Your task to perform on an android device: Do I have any events this weekend? Image 0: 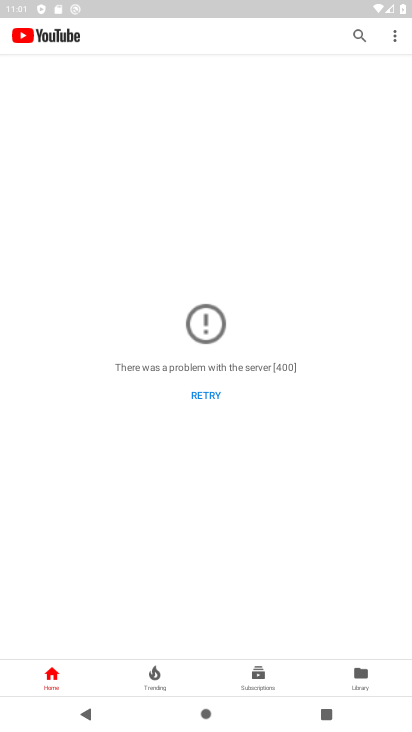
Step 0: press home button
Your task to perform on an android device: Do I have any events this weekend? Image 1: 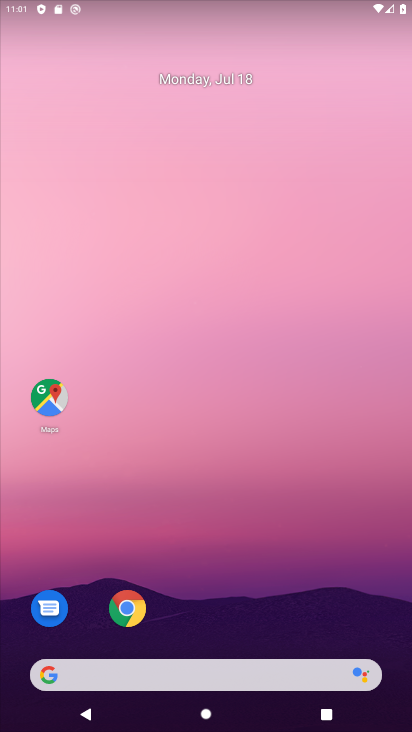
Step 1: drag from (247, 621) to (244, 100)
Your task to perform on an android device: Do I have any events this weekend? Image 2: 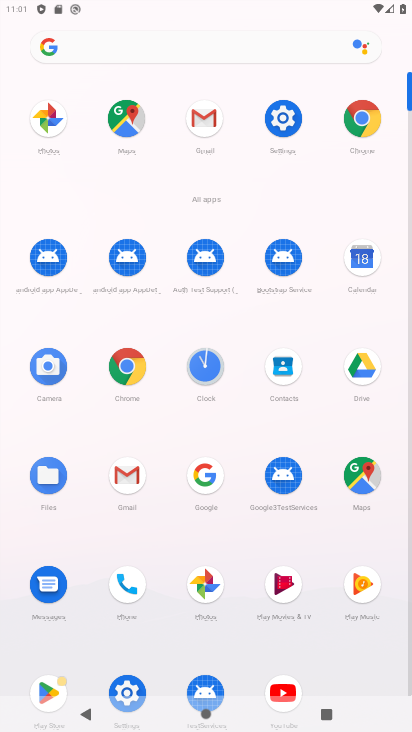
Step 2: click (356, 248)
Your task to perform on an android device: Do I have any events this weekend? Image 3: 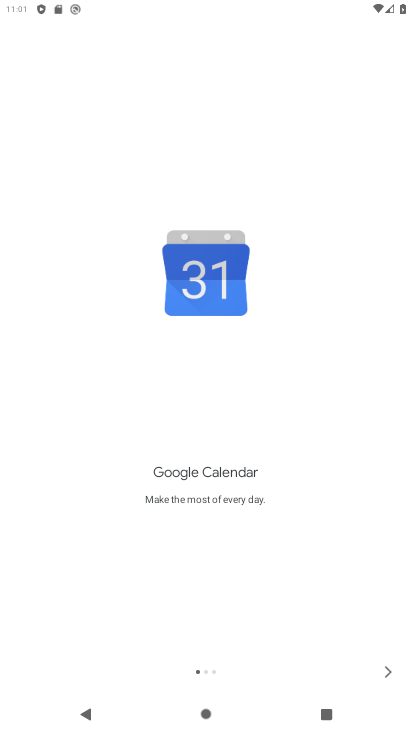
Step 3: click (386, 674)
Your task to perform on an android device: Do I have any events this weekend? Image 4: 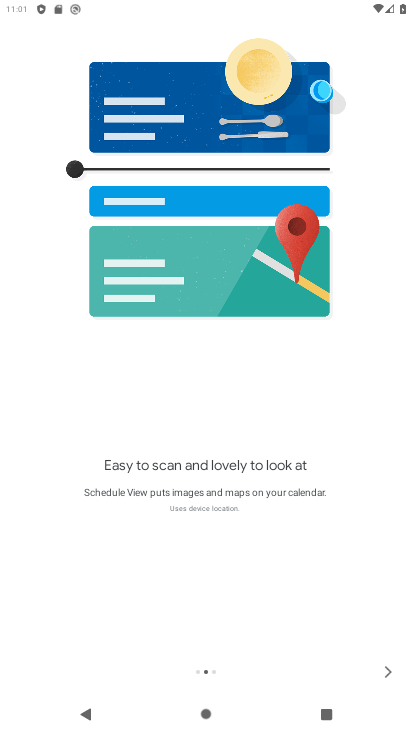
Step 4: click (390, 672)
Your task to perform on an android device: Do I have any events this weekend? Image 5: 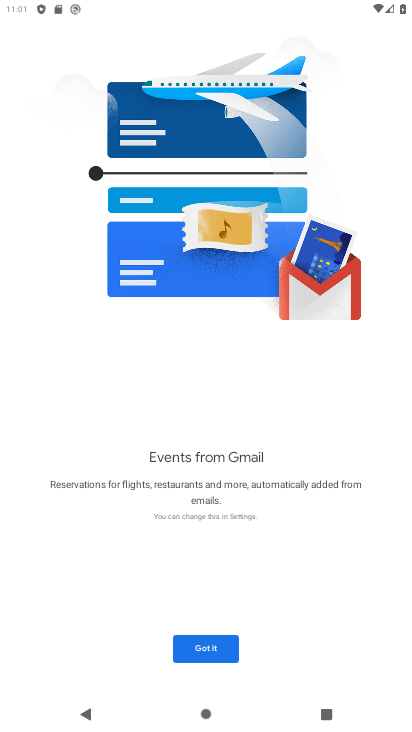
Step 5: click (200, 645)
Your task to perform on an android device: Do I have any events this weekend? Image 6: 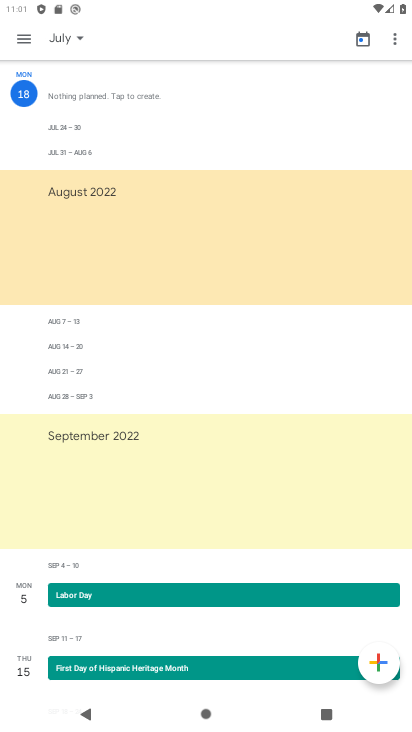
Step 6: click (22, 37)
Your task to perform on an android device: Do I have any events this weekend? Image 7: 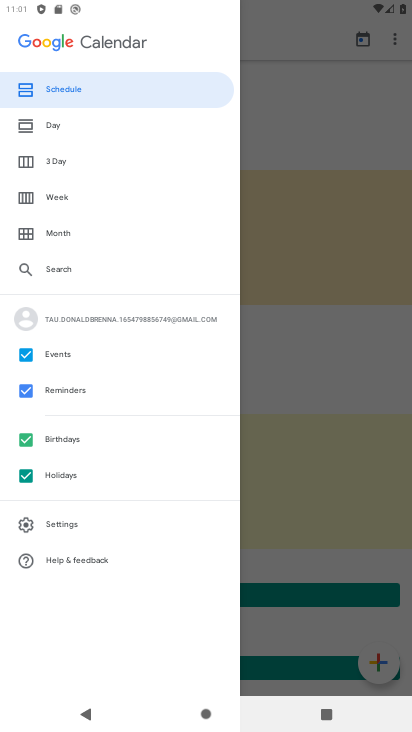
Step 7: click (53, 163)
Your task to perform on an android device: Do I have any events this weekend? Image 8: 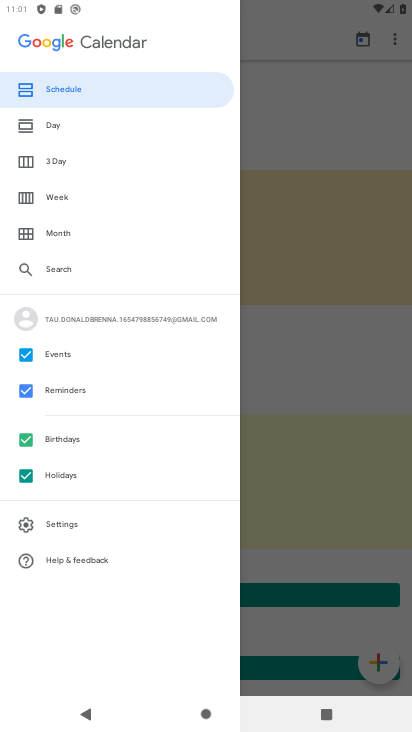
Step 8: click (25, 474)
Your task to perform on an android device: Do I have any events this weekend? Image 9: 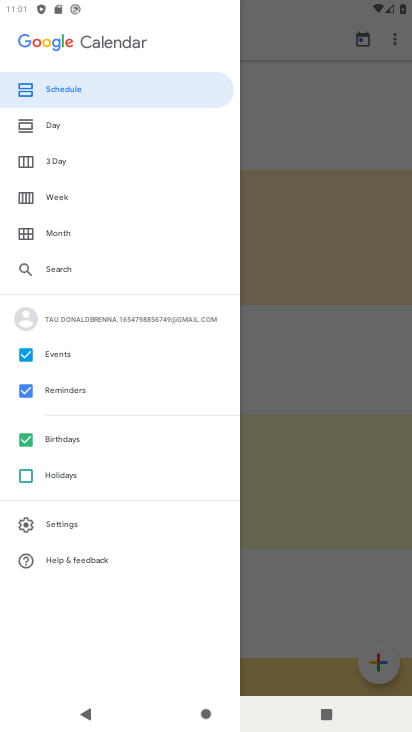
Step 9: click (25, 439)
Your task to perform on an android device: Do I have any events this weekend? Image 10: 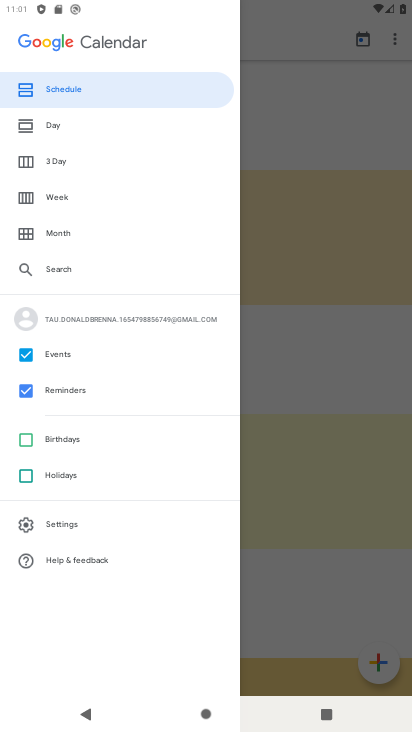
Step 10: click (27, 392)
Your task to perform on an android device: Do I have any events this weekend? Image 11: 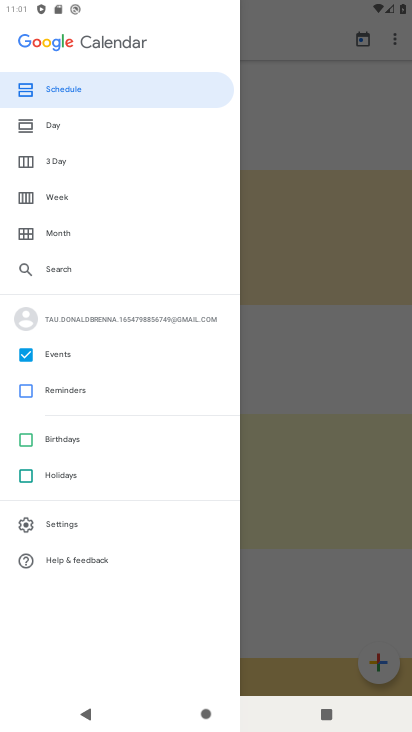
Step 11: click (58, 155)
Your task to perform on an android device: Do I have any events this weekend? Image 12: 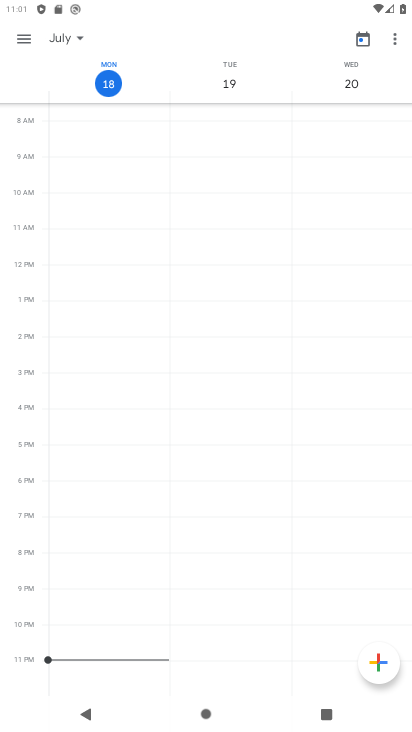
Step 12: task complete